Your task to perform on an android device: Open the Play Movies app and select the watchlist tab. Image 0: 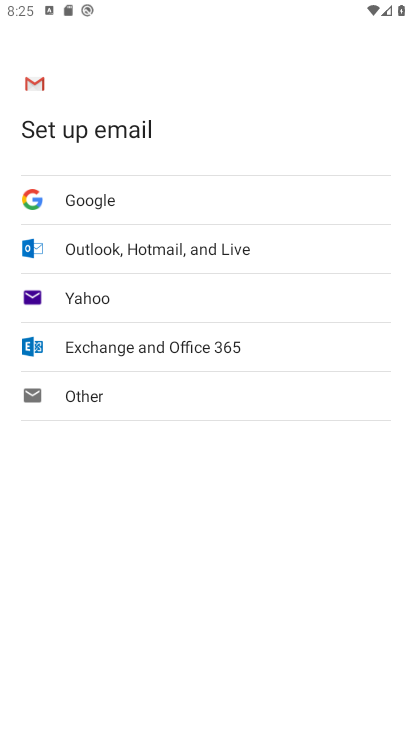
Step 0: press home button
Your task to perform on an android device: Open the Play Movies app and select the watchlist tab. Image 1: 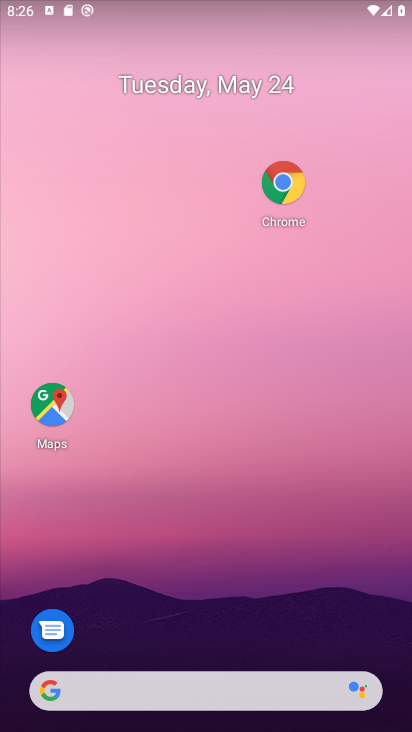
Step 1: drag from (235, 693) to (67, 147)
Your task to perform on an android device: Open the Play Movies app and select the watchlist tab. Image 2: 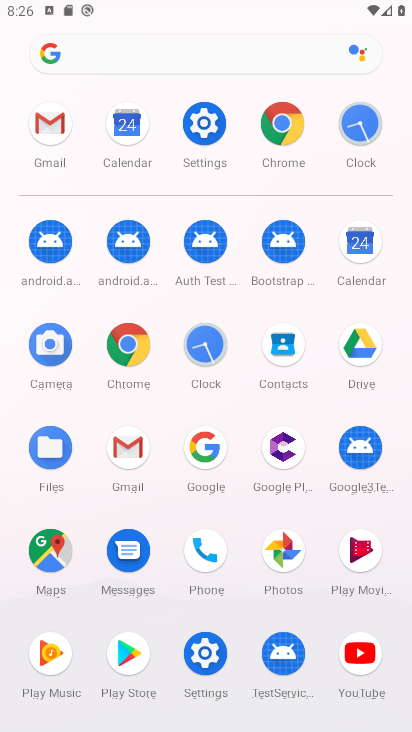
Step 2: click (353, 559)
Your task to perform on an android device: Open the Play Movies app and select the watchlist tab. Image 3: 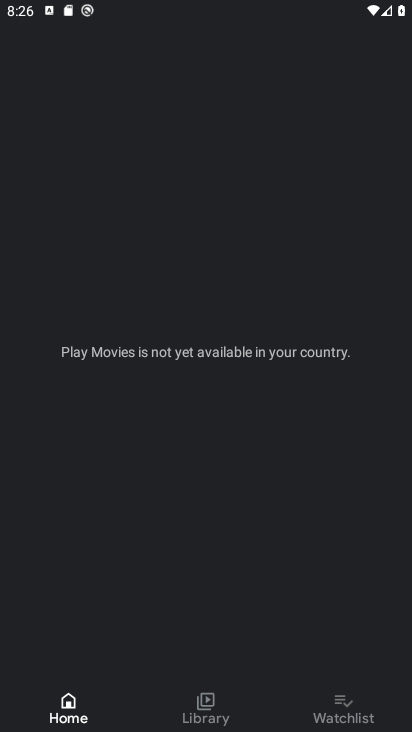
Step 3: click (338, 706)
Your task to perform on an android device: Open the Play Movies app and select the watchlist tab. Image 4: 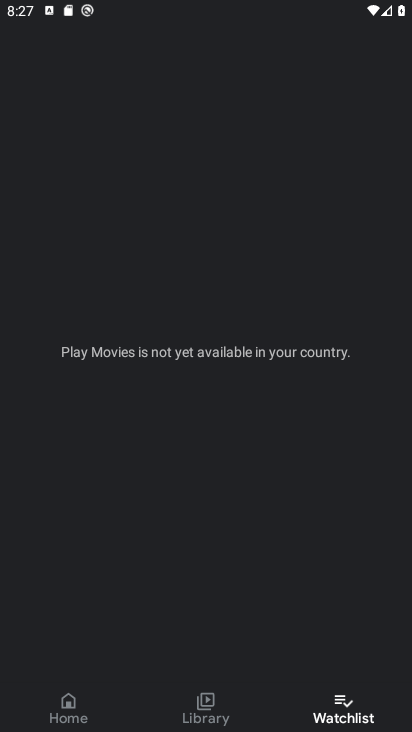
Step 4: task complete